Your task to perform on an android device: clear all cookies in the chrome app Image 0: 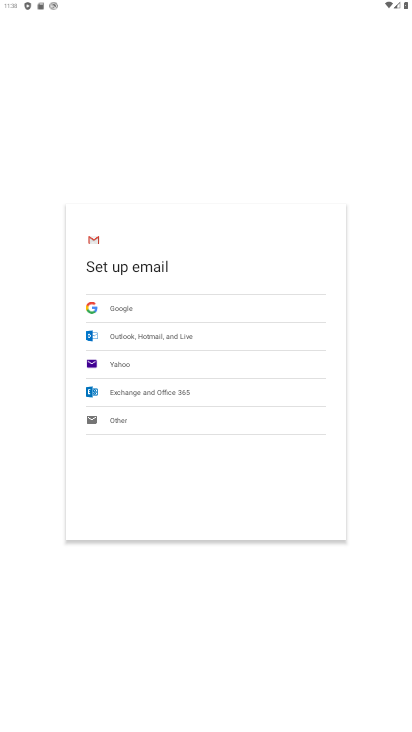
Step 0: press home button
Your task to perform on an android device: clear all cookies in the chrome app Image 1: 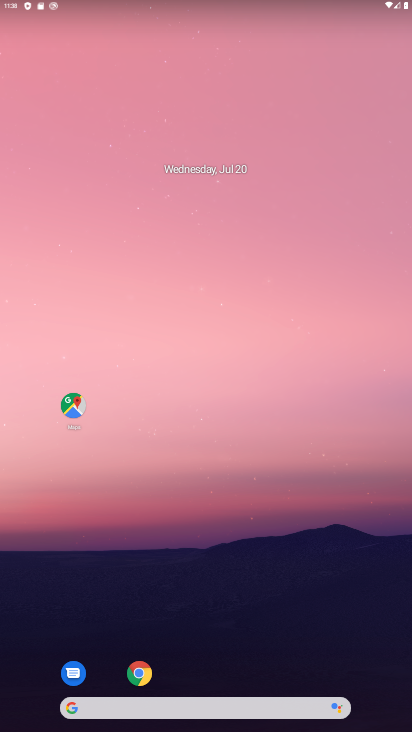
Step 1: click (141, 677)
Your task to perform on an android device: clear all cookies in the chrome app Image 2: 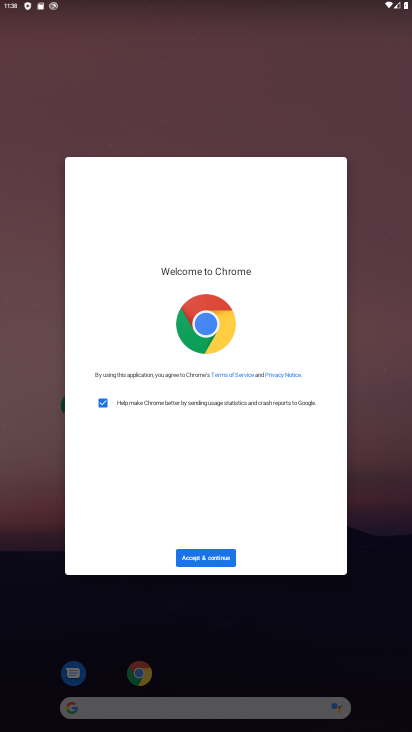
Step 2: click (223, 554)
Your task to perform on an android device: clear all cookies in the chrome app Image 3: 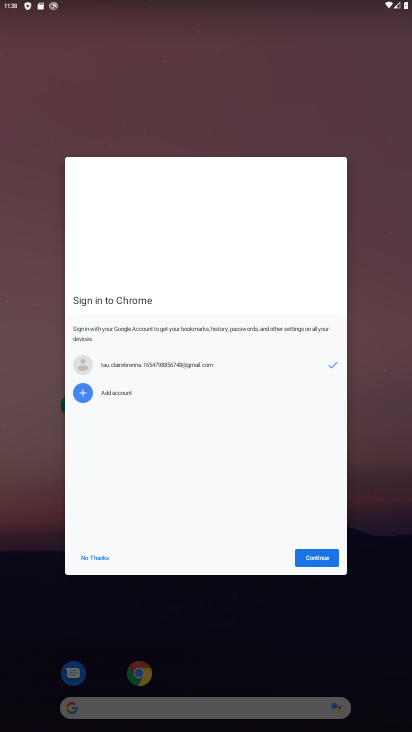
Step 3: click (319, 556)
Your task to perform on an android device: clear all cookies in the chrome app Image 4: 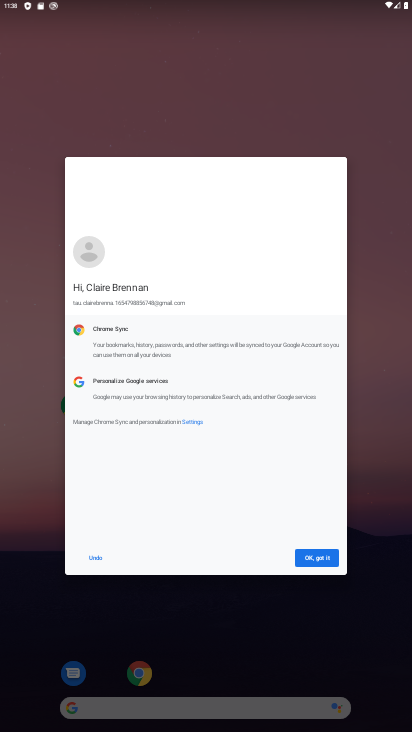
Step 4: click (319, 556)
Your task to perform on an android device: clear all cookies in the chrome app Image 5: 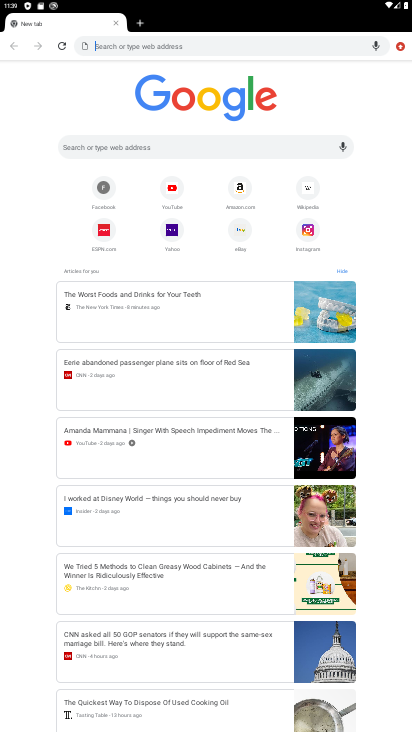
Step 5: click (399, 46)
Your task to perform on an android device: clear all cookies in the chrome app Image 6: 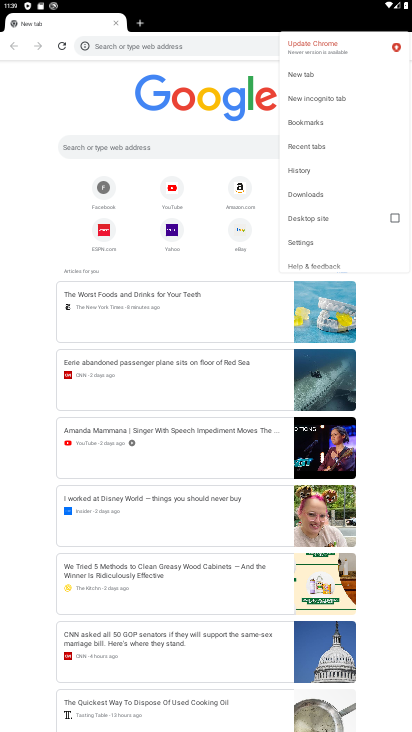
Step 6: click (304, 173)
Your task to perform on an android device: clear all cookies in the chrome app Image 7: 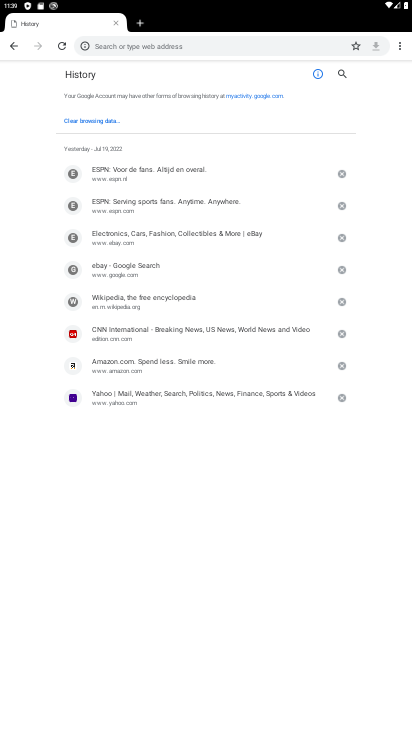
Step 7: click (97, 124)
Your task to perform on an android device: clear all cookies in the chrome app Image 8: 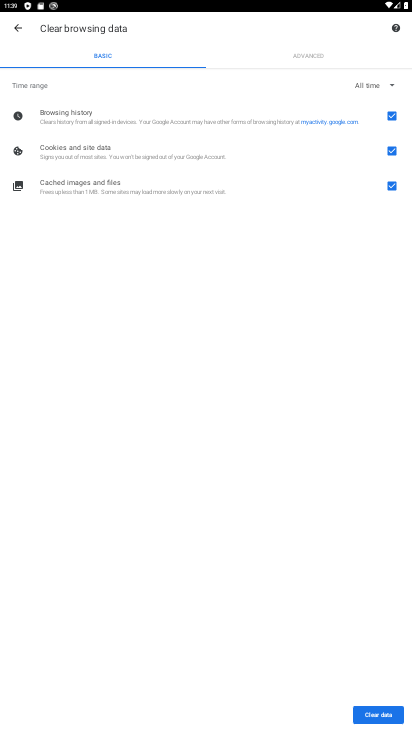
Step 8: click (370, 716)
Your task to perform on an android device: clear all cookies in the chrome app Image 9: 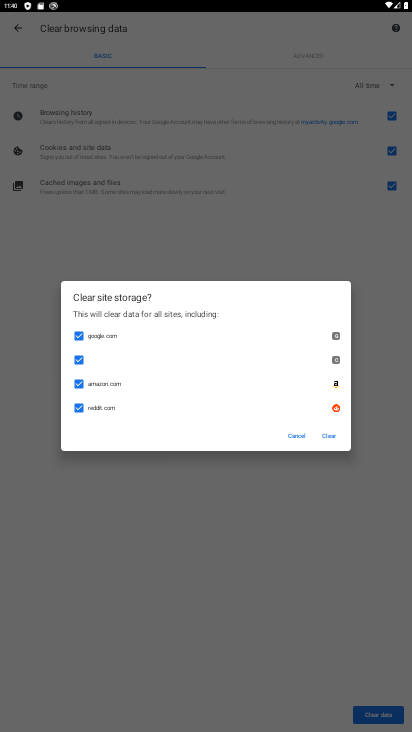
Step 9: click (322, 437)
Your task to perform on an android device: clear all cookies in the chrome app Image 10: 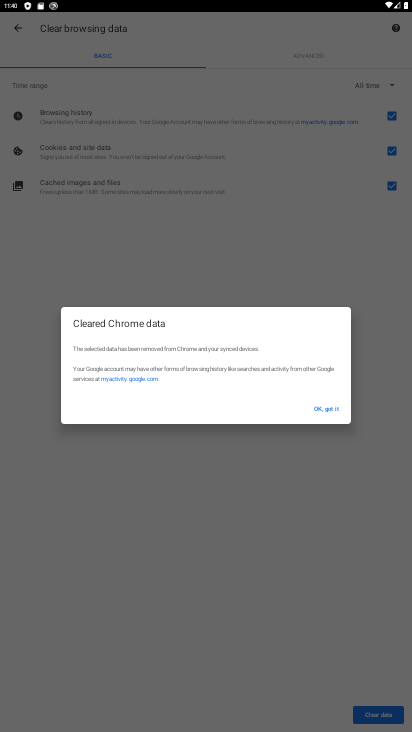
Step 10: click (321, 403)
Your task to perform on an android device: clear all cookies in the chrome app Image 11: 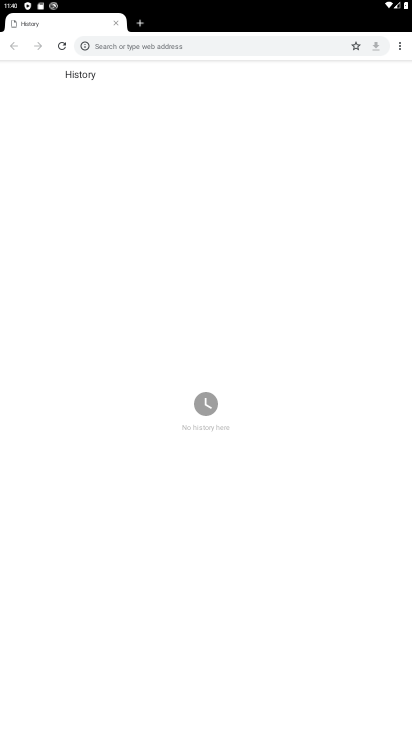
Step 11: task complete